Your task to perform on an android device: turn off translation in the chrome app Image 0: 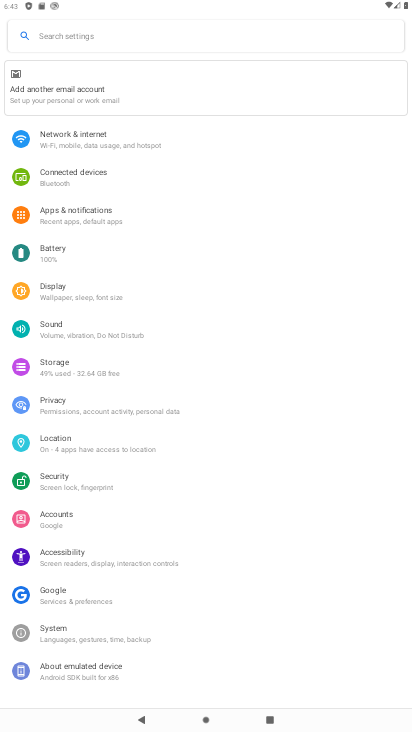
Step 0: press home button
Your task to perform on an android device: turn off translation in the chrome app Image 1: 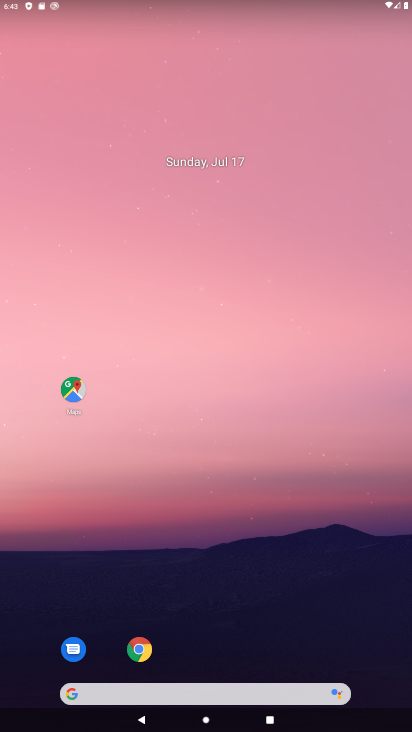
Step 1: click (139, 654)
Your task to perform on an android device: turn off translation in the chrome app Image 2: 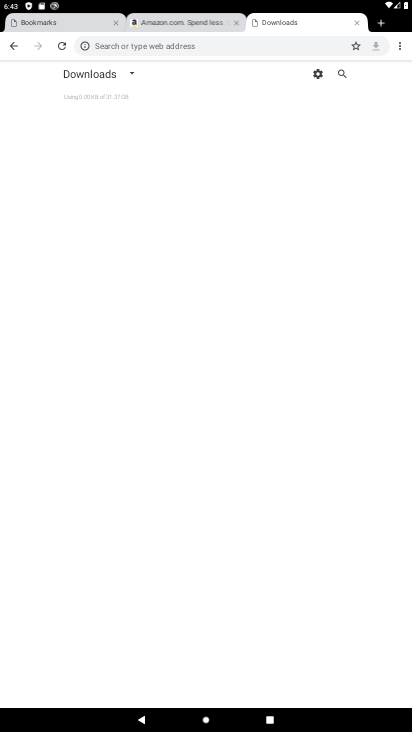
Step 2: click (403, 45)
Your task to perform on an android device: turn off translation in the chrome app Image 3: 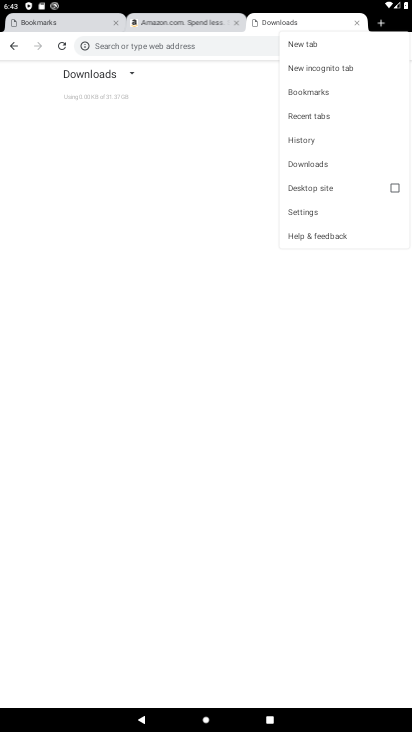
Step 3: click (310, 209)
Your task to perform on an android device: turn off translation in the chrome app Image 4: 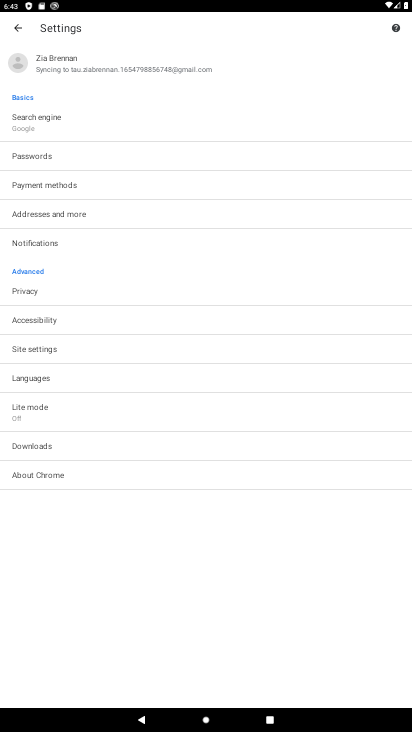
Step 4: click (32, 378)
Your task to perform on an android device: turn off translation in the chrome app Image 5: 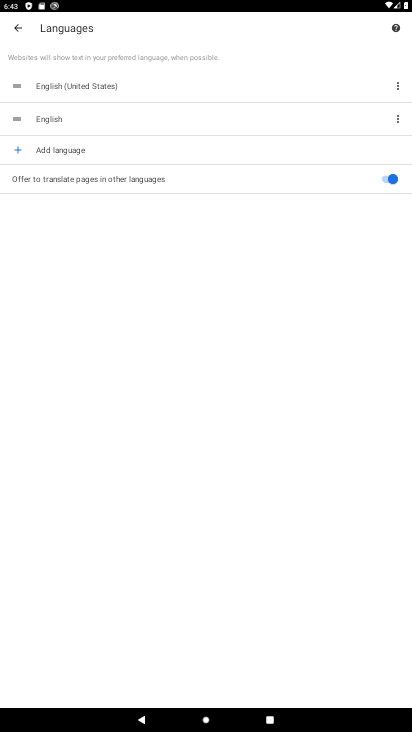
Step 5: click (399, 181)
Your task to perform on an android device: turn off translation in the chrome app Image 6: 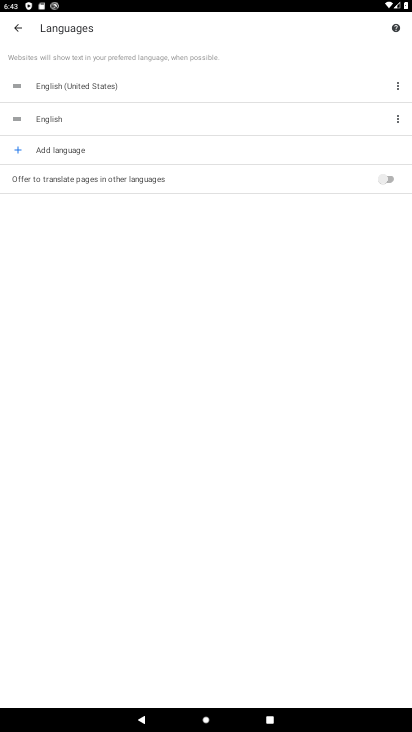
Step 6: task complete